Your task to perform on an android device: manage bookmarks in the chrome app Image 0: 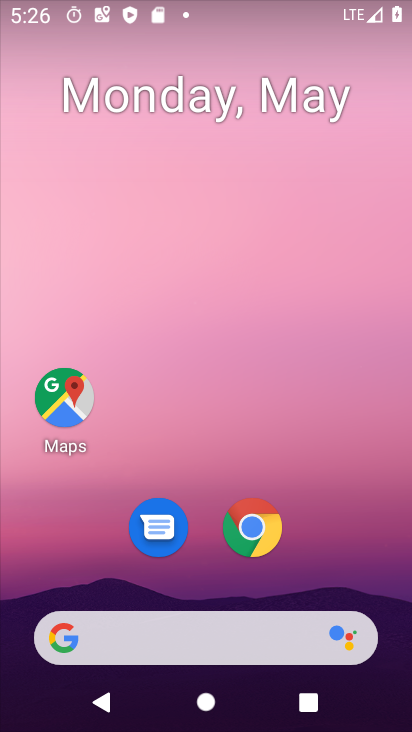
Step 0: click (256, 518)
Your task to perform on an android device: manage bookmarks in the chrome app Image 1: 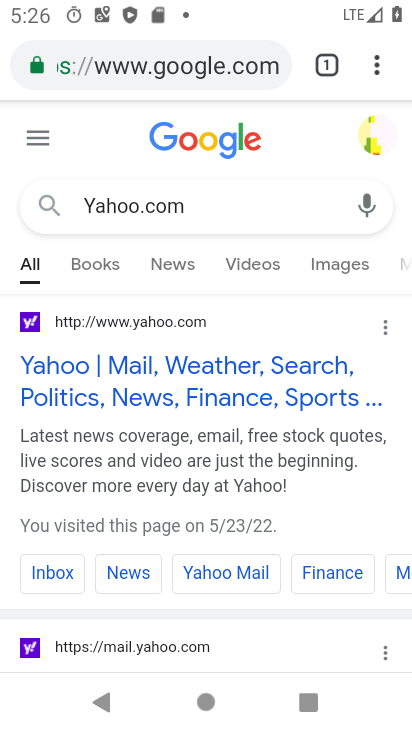
Step 1: click (371, 56)
Your task to perform on an android device: manage bookmarks in the chrome app Image 2: 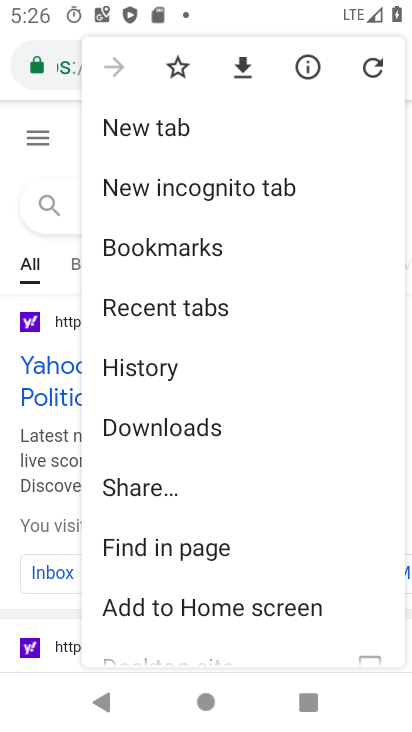
Step 2: click (165, 246)
Your task to perform on an android device: manage bookmarks in the chrome app Image 3: 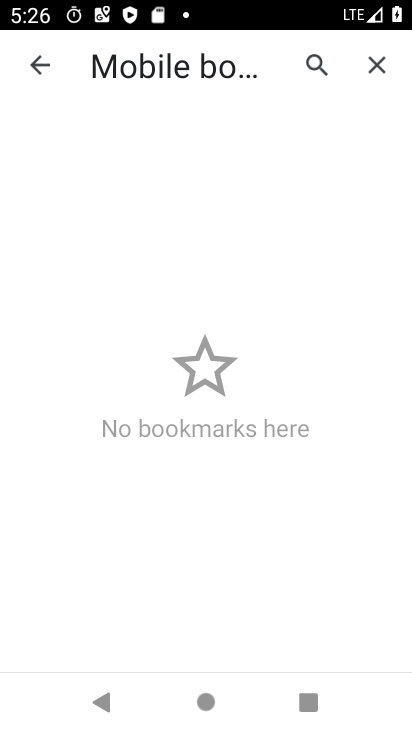
Step 3: task complete